Your task to perform on an android device: Do I have any events today? Image 0: 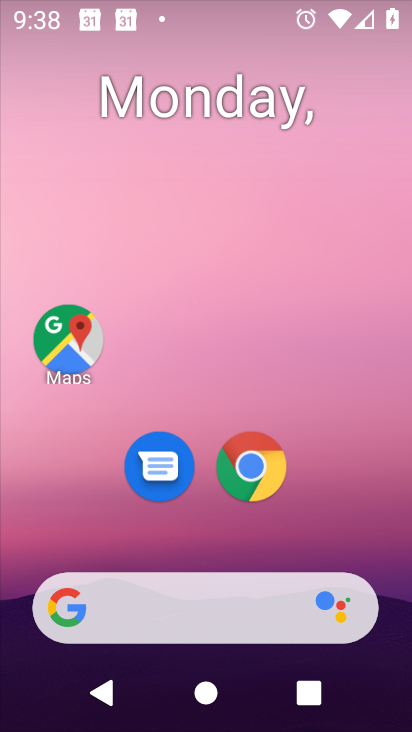
Step 0: drag from (345, 581) to (353, 24)
Your task to perform on an android device: Do I have any events today? Image 1: 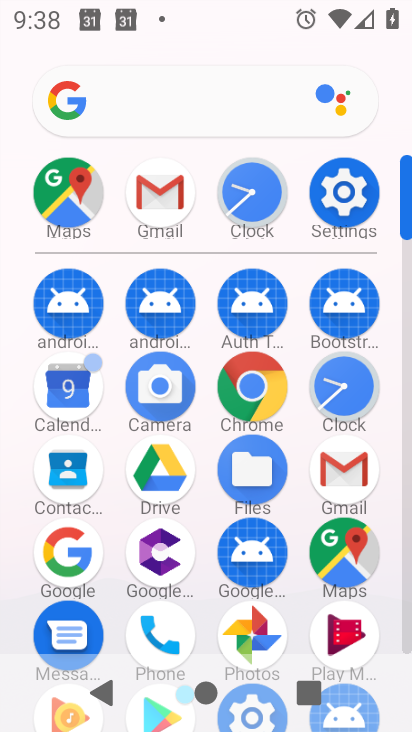
Step 1: click (57, 194)
Your task to perform on an android device: Do I have any events today? Image 2: 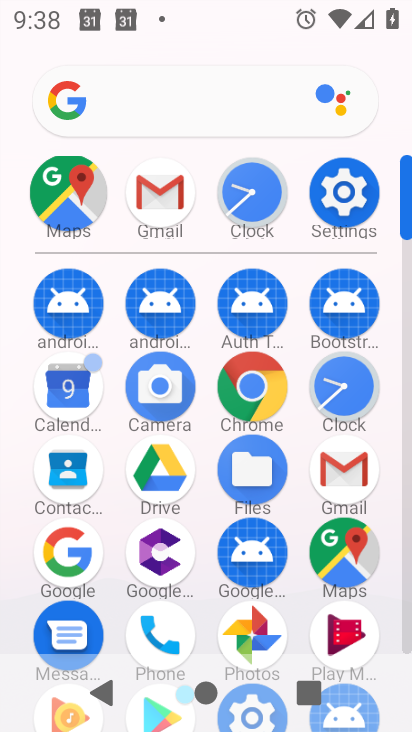
Step 2: click (58, 195)
Your task to perform on an android device: Do I have any events today? Image 3: 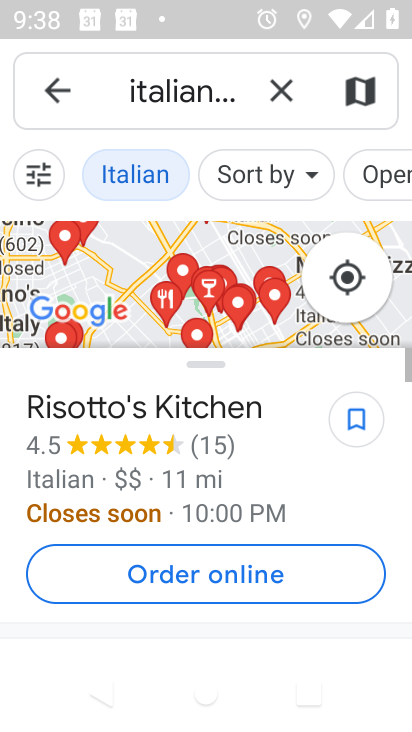
Step 3: click (271, 83)
Your task to perform on an android device: Do I have any events today? Image 4: 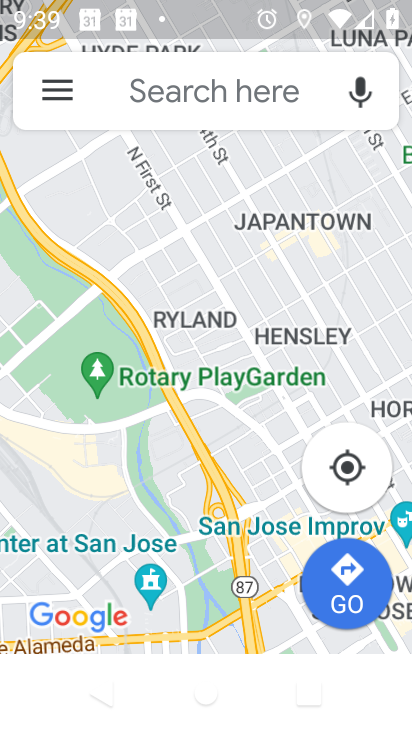
Step 4: press back button
Your task to perform on an android device: Do I have any events today? Image 5: 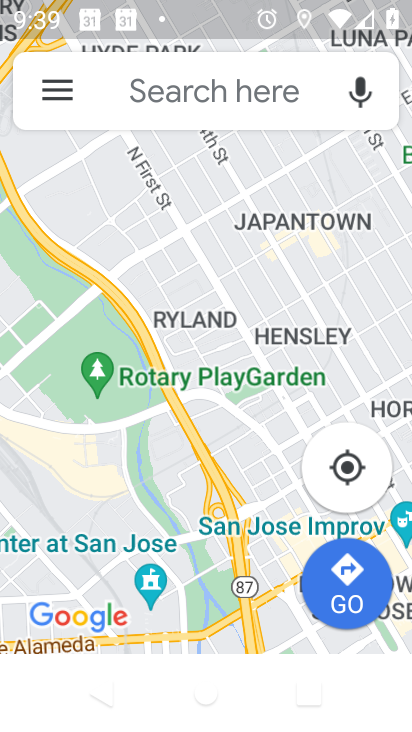
Step 5: press back button
Your task to perform on an android device: Do I have any events today? Image 6: 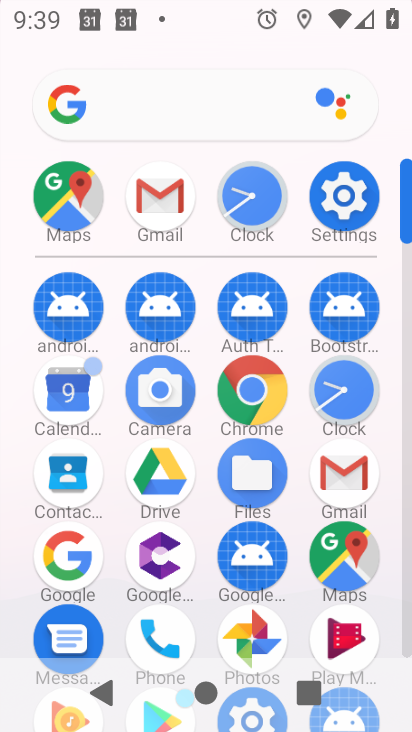
Step 6: press back button
Your task to perform on an android device: Do I have any events today? Image 7: 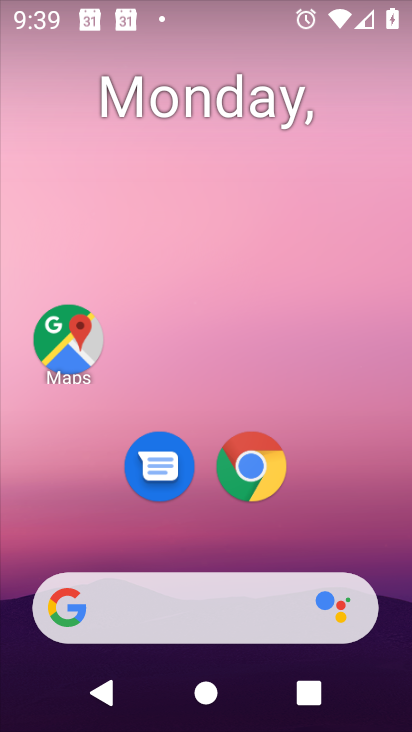
Step 7: drag from (370, 665) to (232, 94)
Your task to perform on an android device: Do I have any events today? Image 8: 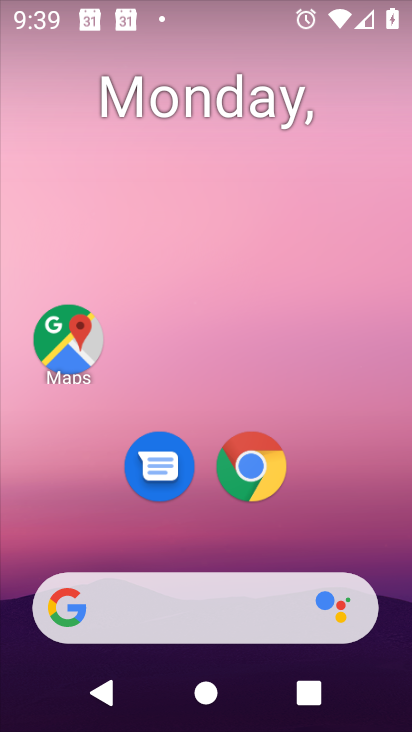
Step 8: drag from (377, 530) to (262, 31)
Your task to perform on an android device: Do I have any events today? Image 9: 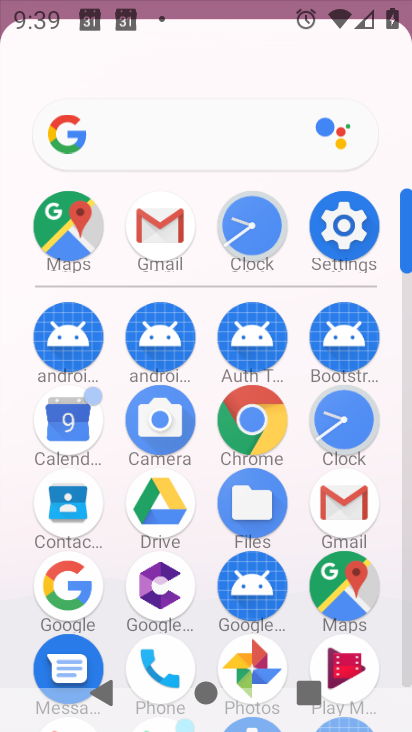
Step 9: drag from (345, 467) to (237, 104)
Your task to perform on an android device: Do I have any events today? Image 10: 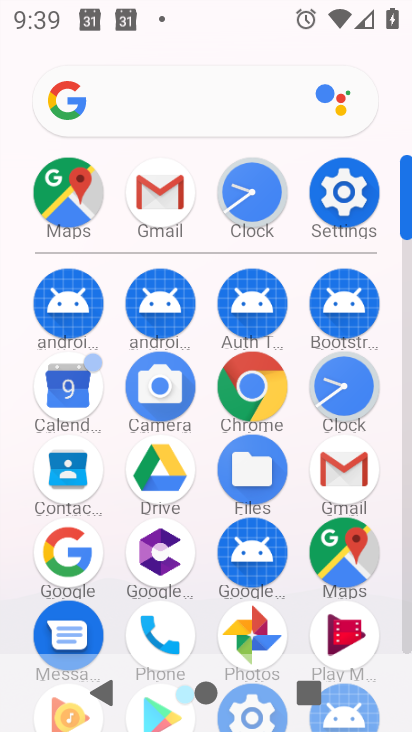
Step 10: click (67, 387)
Your task to perform on an android device: Do I have any events today? Image 11: 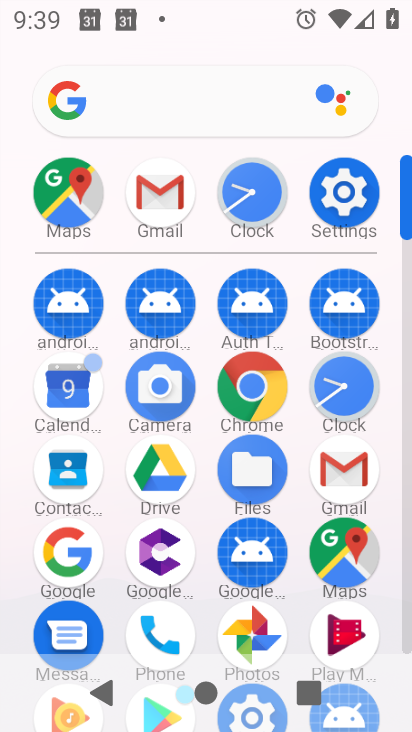
Step 11: click (69, 382)
Your task to perform on an android device: Do I have any events today? Image 12: 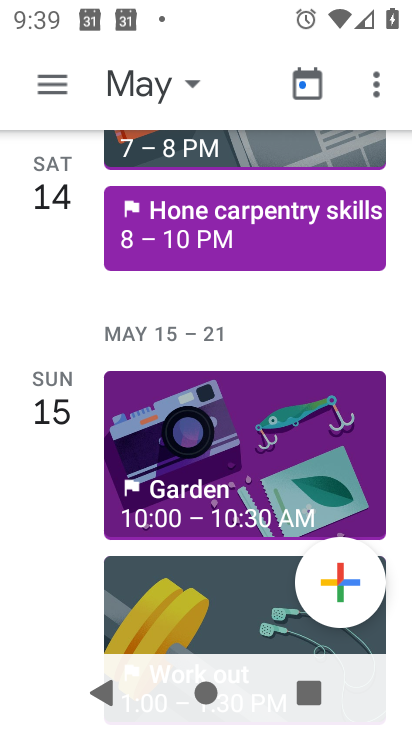
Step 12: click (72, 391)
Your task to perform on an android device: Do I have any events today? Image 13: 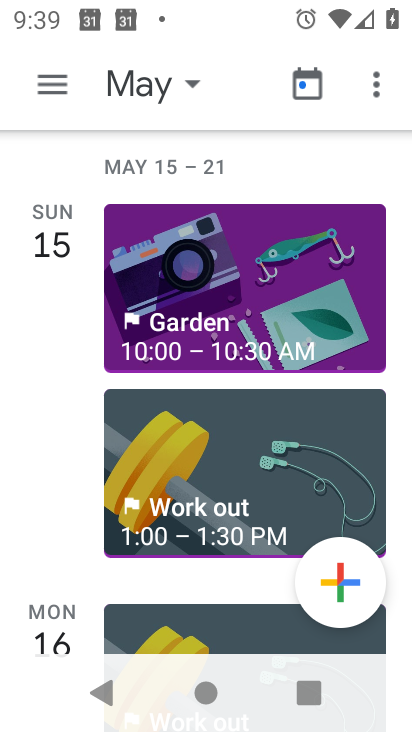
Step 13: task complete